Your task to perform on an android device: What's on my calendar today? Image 0: 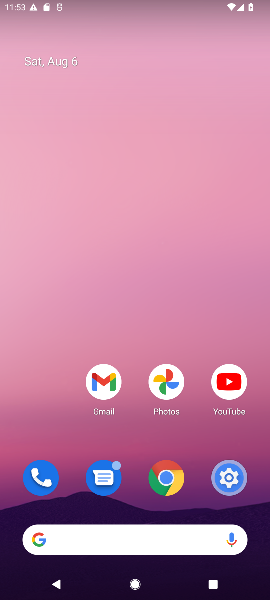
Step 0: drag from (153, 525) to (129, 219)
Your task to perform on an android device: What's on my calendar today? Image 1: 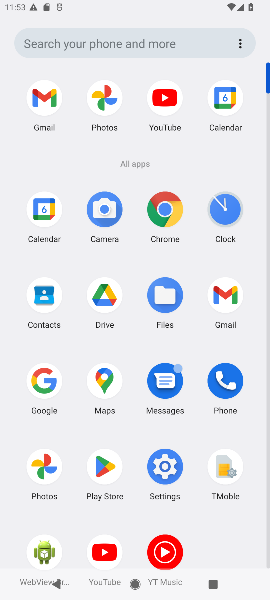
Step 1: click (35, 216)
Your task to perform on an android device: What's on my calendar today? Image 2: 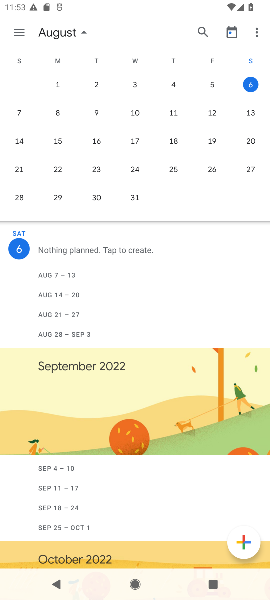
Step 2: click (248, 83)
Your task to perform on an android device: What's on my calendar today? Image 3: 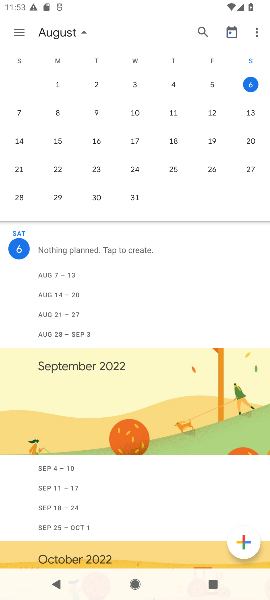
Step 3: task complete